Your task to perform on an android device: refresh tabs in the chrome app Image 0: 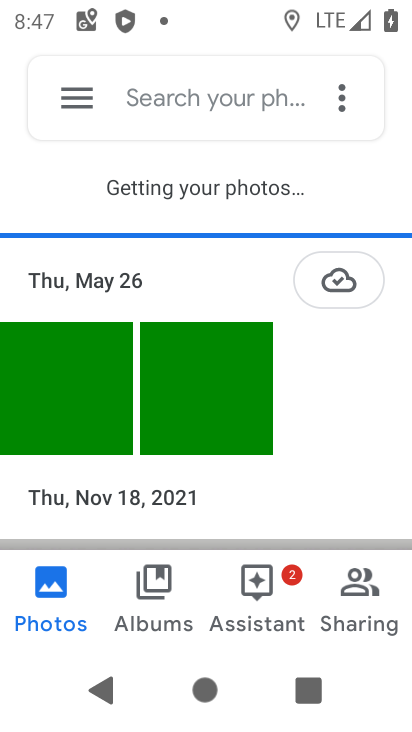
Step 0: press home button
Your task to perform on an android device: refresh tabs in the chrome app Image 1: 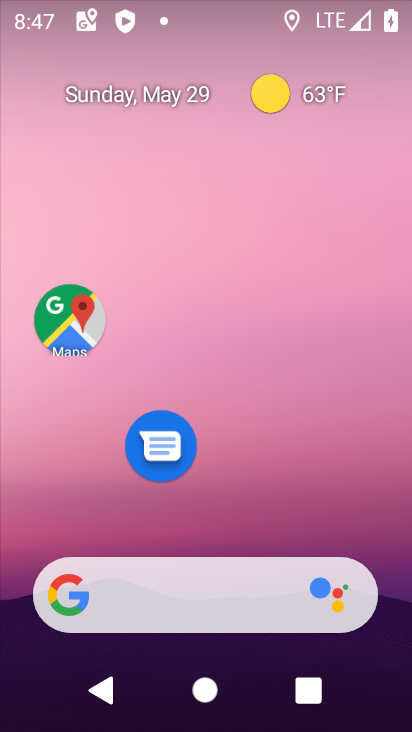
Step 1: drag from (210, 520) to (254, 251)
Your task to perform on an android device: refresh tabs in the chrome app Image 2: 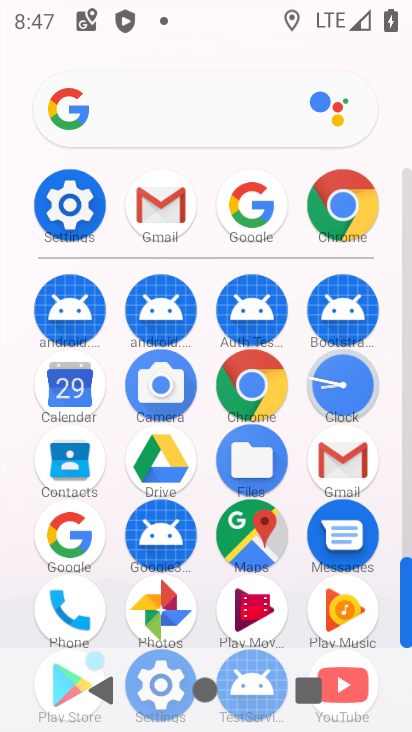
Step 2: click (327, 202)
Your task to perform on an android device: refresh tabs in the chrome app Image 3: 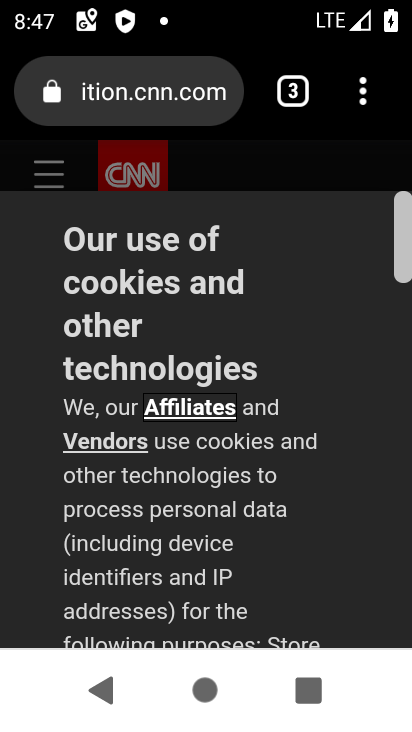
Step 3: task complete